Your task to perform on an android device: turn on translation in the chrome app Image 0: 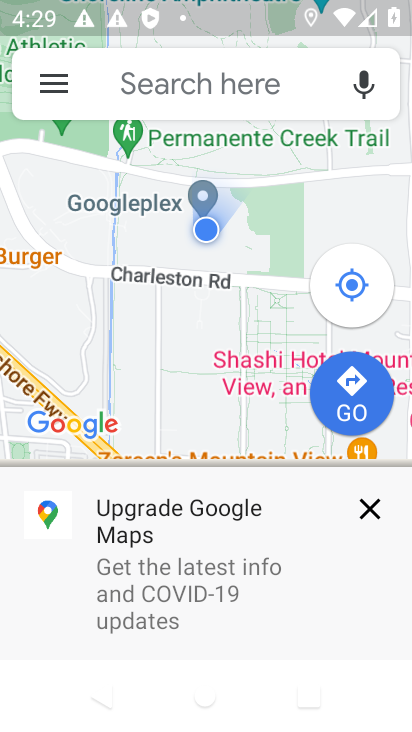
Step 0: press home button
Your task to perform on an android device: turn on translation in the chrome app Image 1: 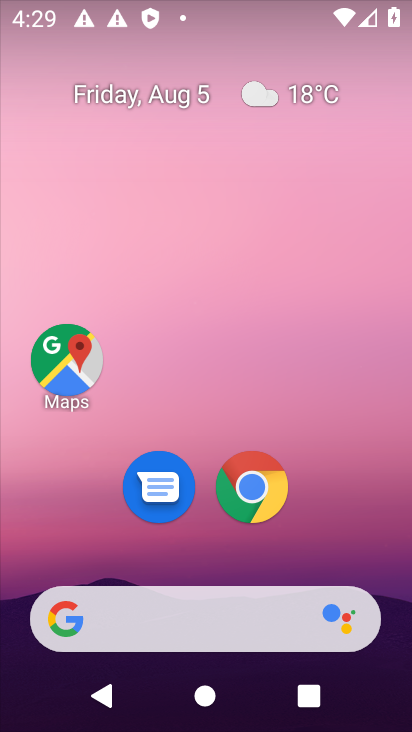
Step 1: drag from (187, 400) to (232, 114)
Your task to perform on an android device: turn on translation in the chrome app Image 2: 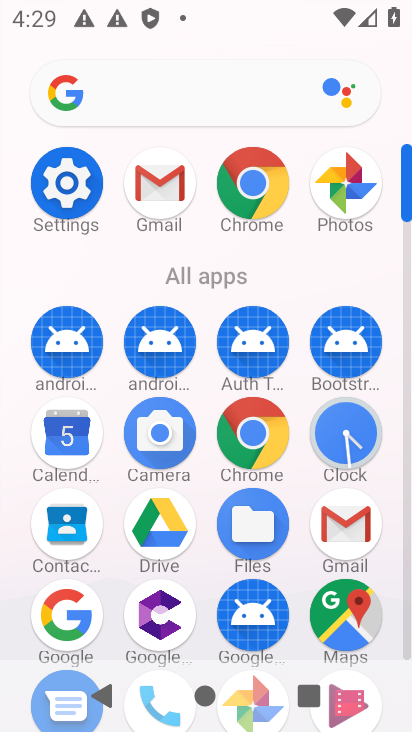
Step 2: click (256, 443)
Your task to perform on an android device: turn on translation in the chrome app Image 3: 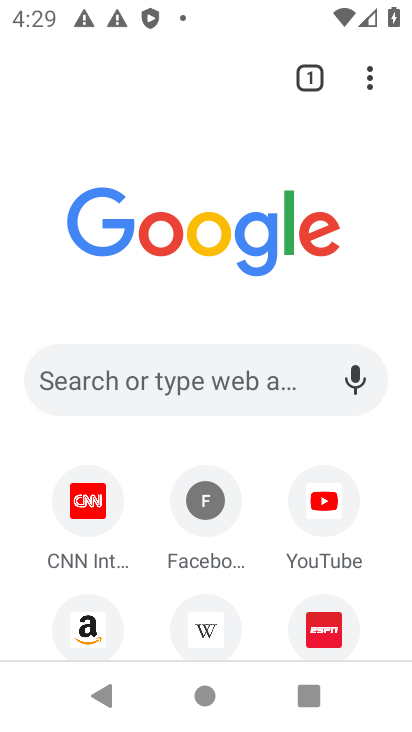
Step 3: click (374, 87)
Your task to perform on an android device: turn on translation in the chrome app Image 4: 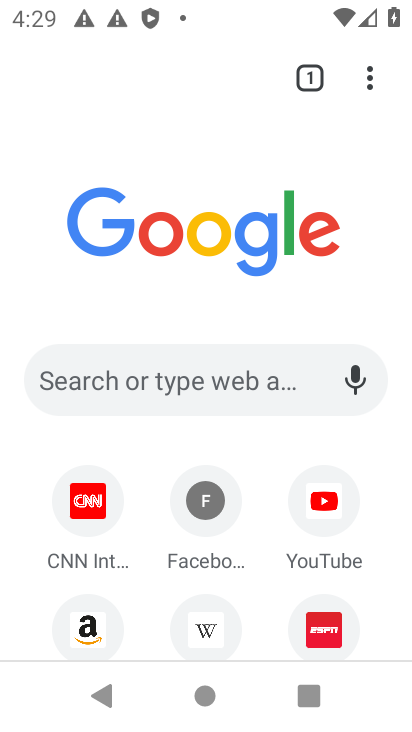
Step 4: click (372, 81)
Your task to perform on an android device: turn on translation in the chrome app Image 5: 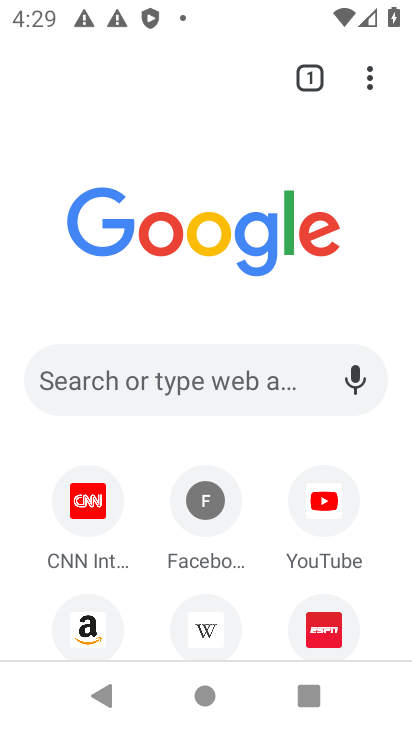
Step 5: click (372, 81)
Your task to perform on an android device: turn on translation in the chrome app Image 6: 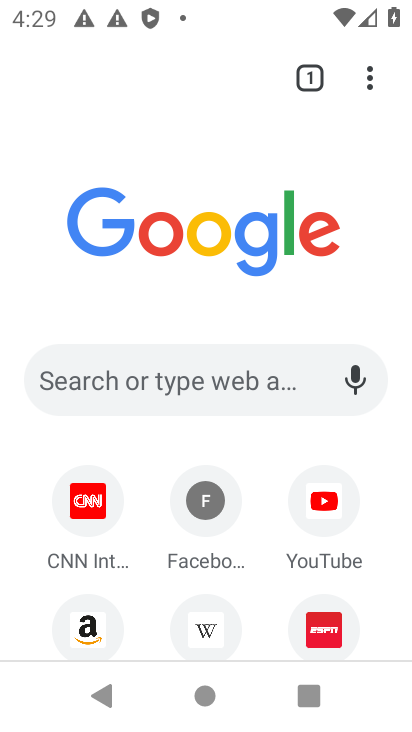
Step 6: click (386, 82)
Your task to perform on an android device: turn on translation in the chrome app Image 7: 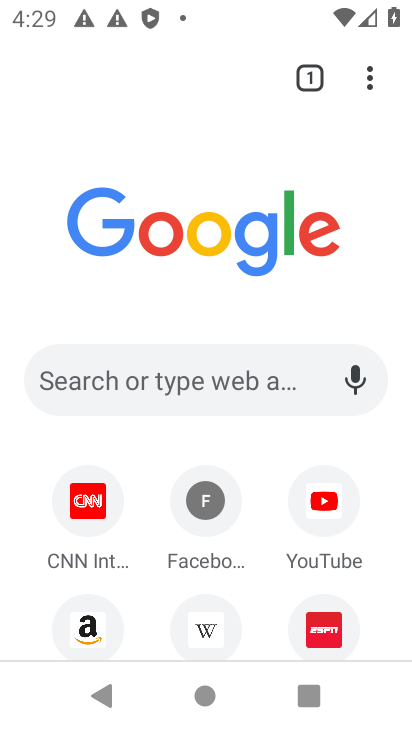
Step 7: click (341, 76)
Your task to perform on an android device: turn on translation in the chrome app Image 8: 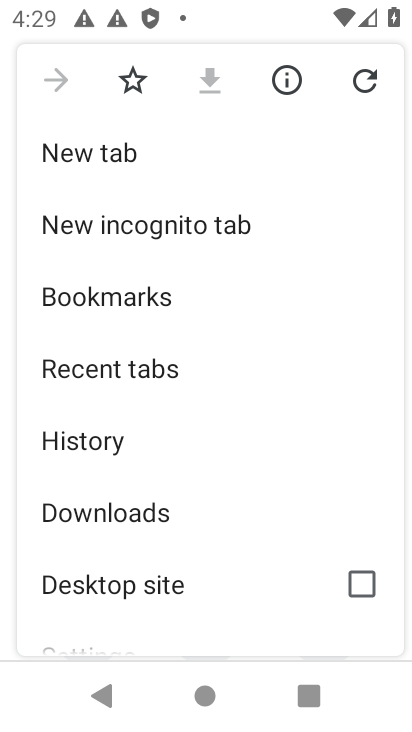
Step 8: task complete